Your task to perform on an android device: Open Google Maps Image 0: 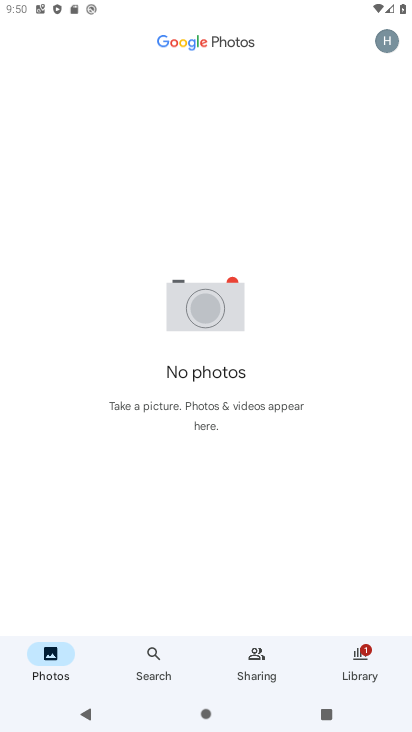
Step 0: press home button
Your task to perform on an android device: Open Google Maps Image 1: 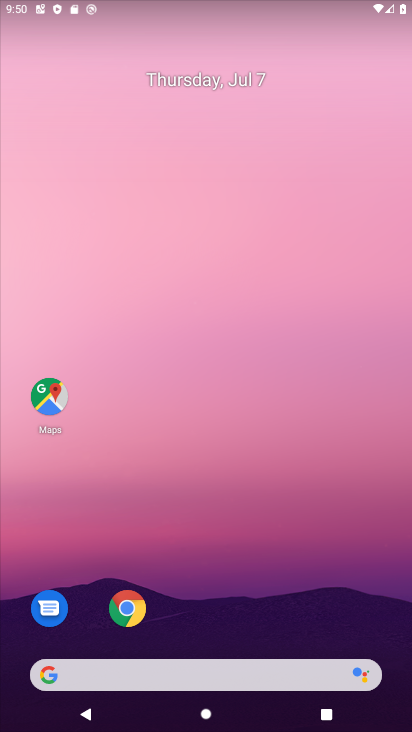
Step 1: click (49, 404)
Your task to perform on an android device: Open Google Maps Image 2: 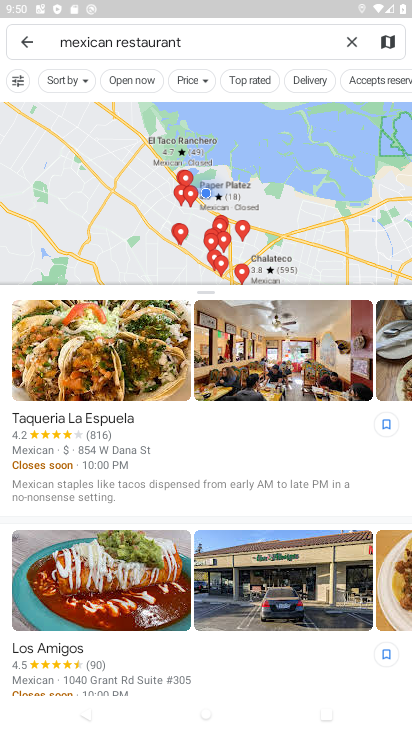
Step 2: task complete